Your task to perform on an android device: Search for seafood restaurants on Google Maps Image 0: 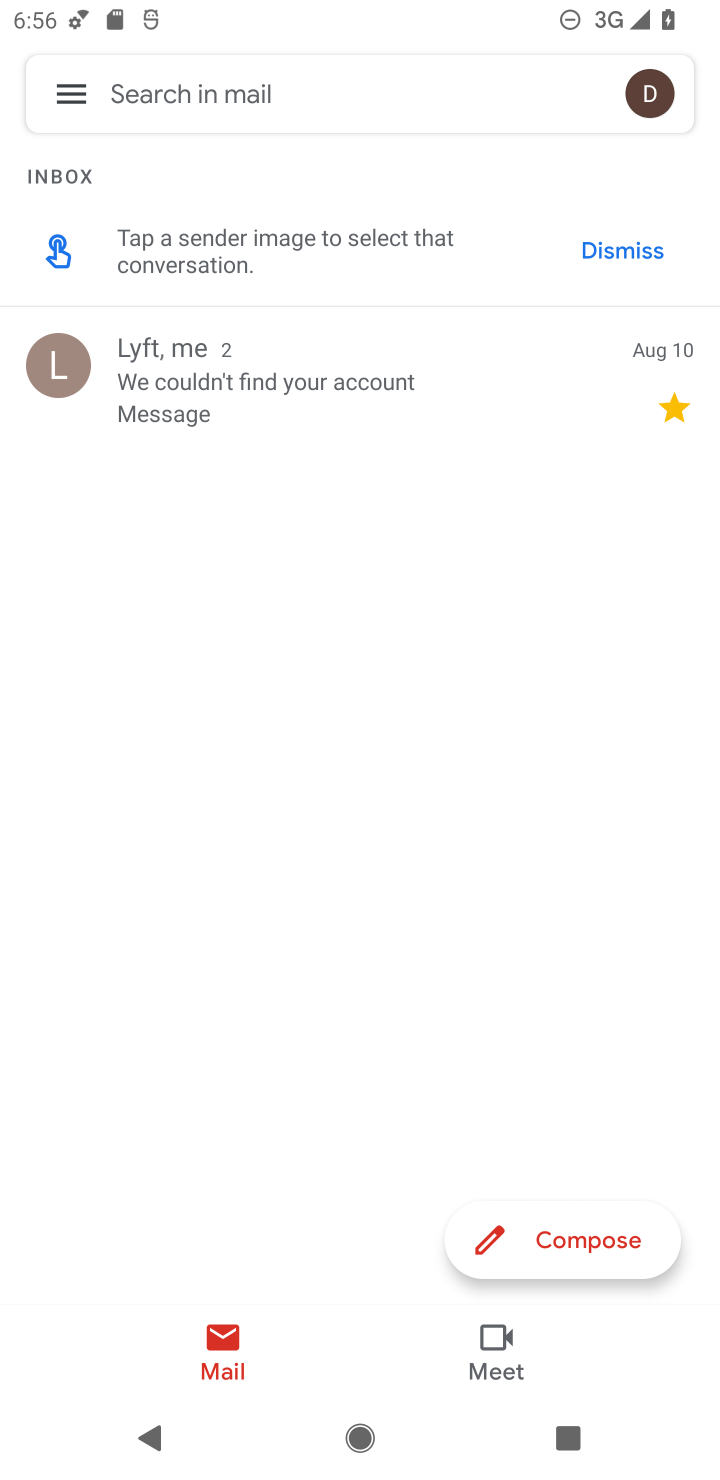
Step 0: press home button
Your task to perform on an android device: Search for seafood restaurants on Google Maps Image 1: 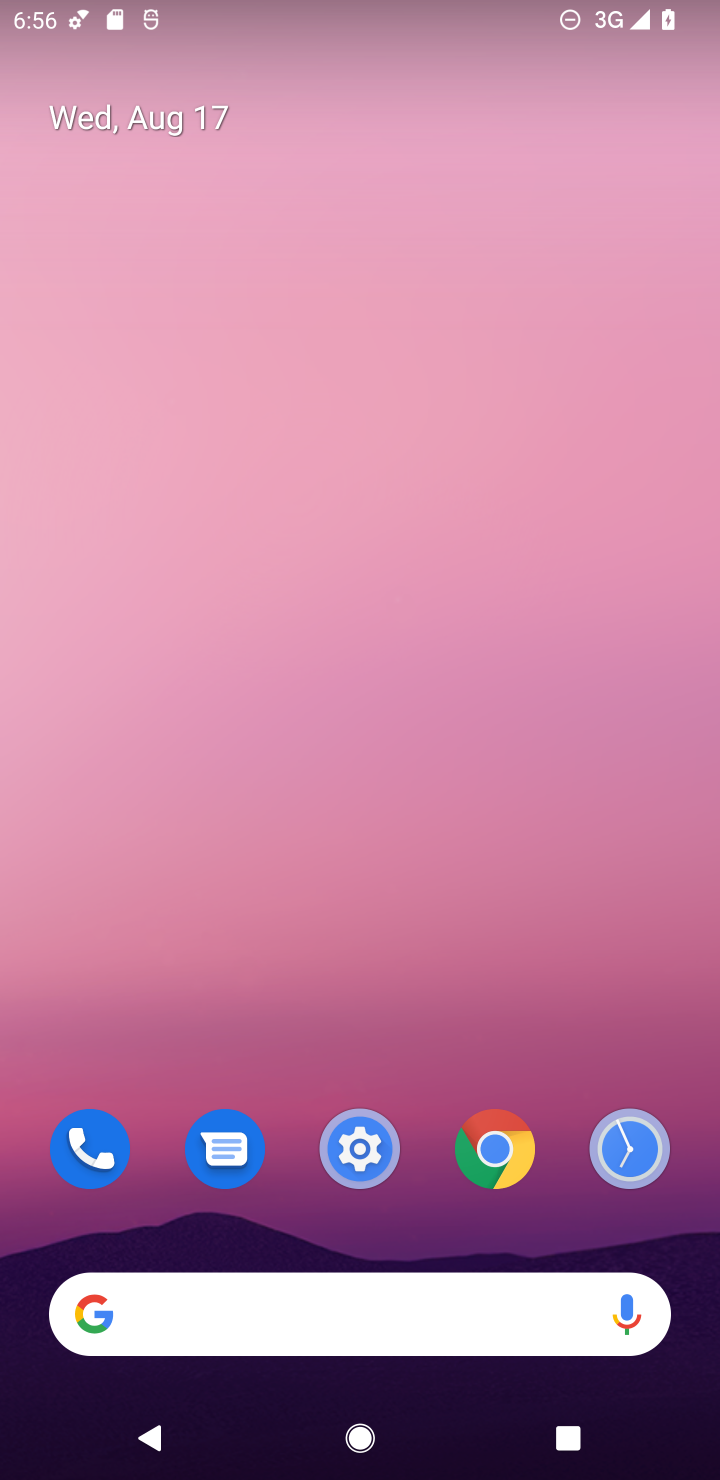
Step 1: drag from (442, 1090) to (386, 403)
Your task to perform on an android device: Search for seafood restaurants on Google Maps Image 2: 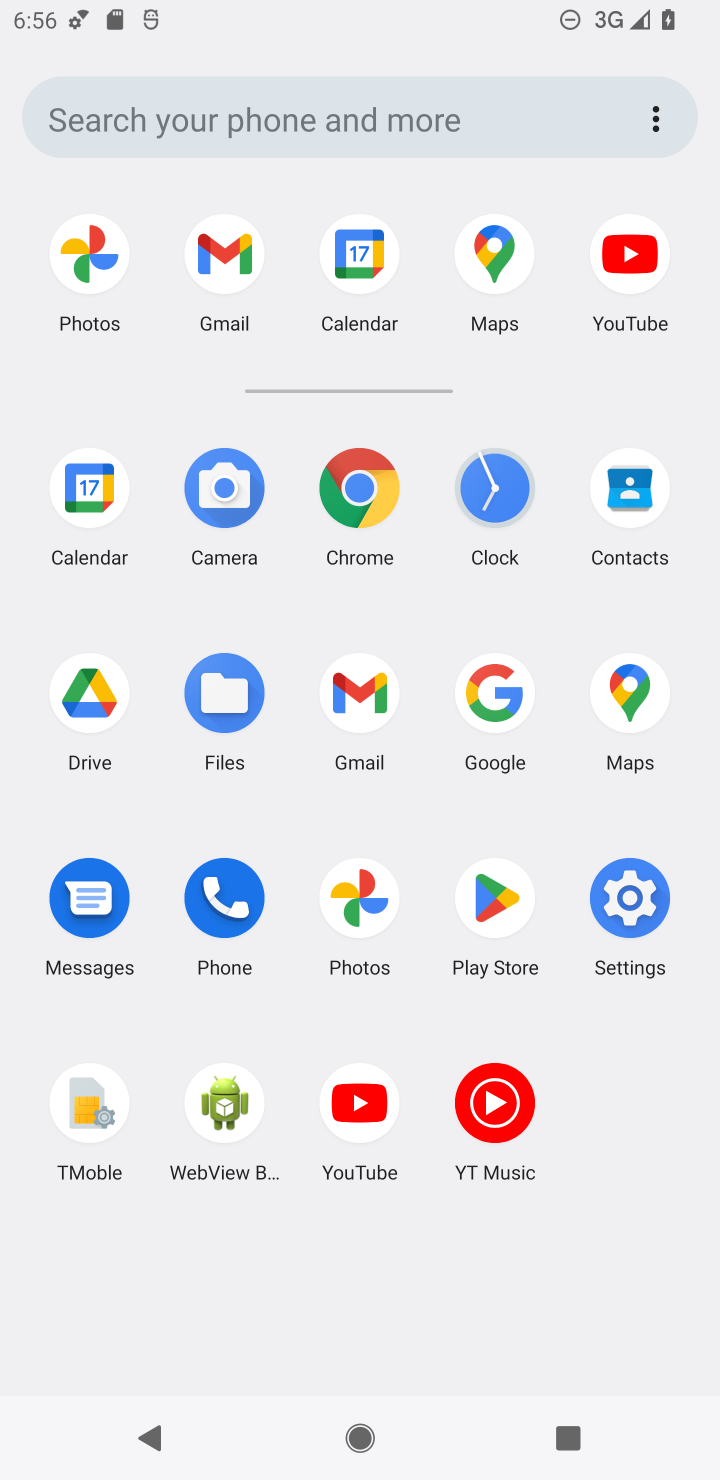
Step 2: click (489, 238)
Your task to perform on an android device: Search for seafood restaurants on Google Maps Image 3: 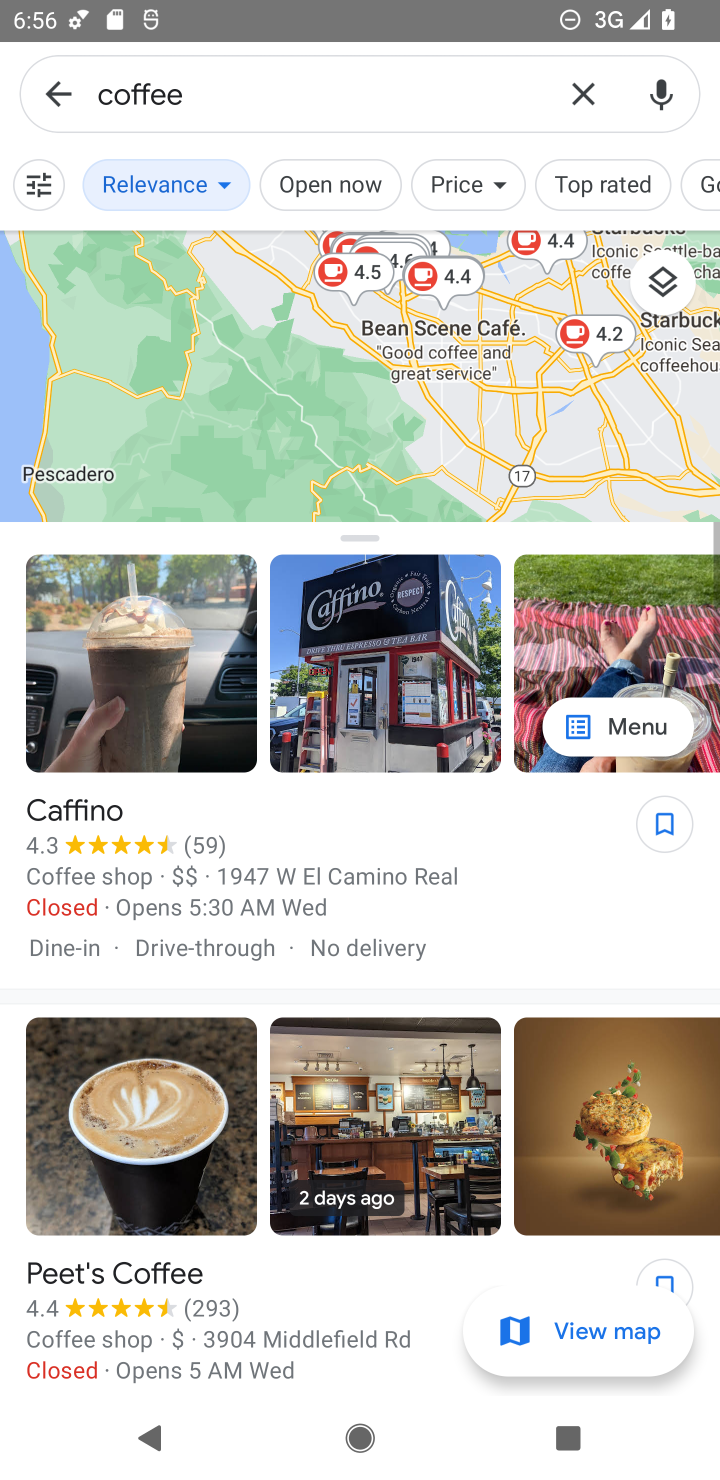
Step 3: click (575, 91)
Your task to perform on an android device: Search for seafood restaurants on Google Maps Image 4: 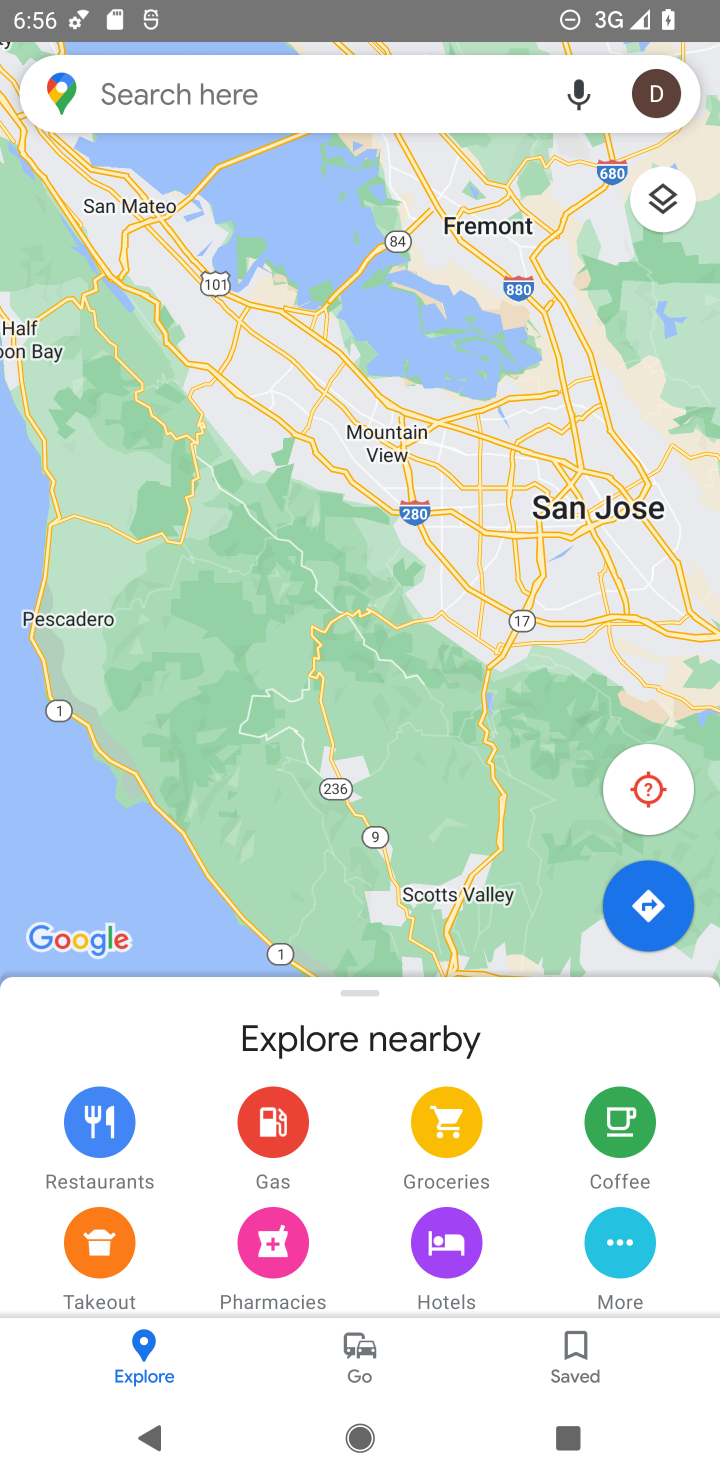
Step 4: click (252, 80)
Your task to perform on an android device: Search for seafood restaurants on Google Maps Image 5: 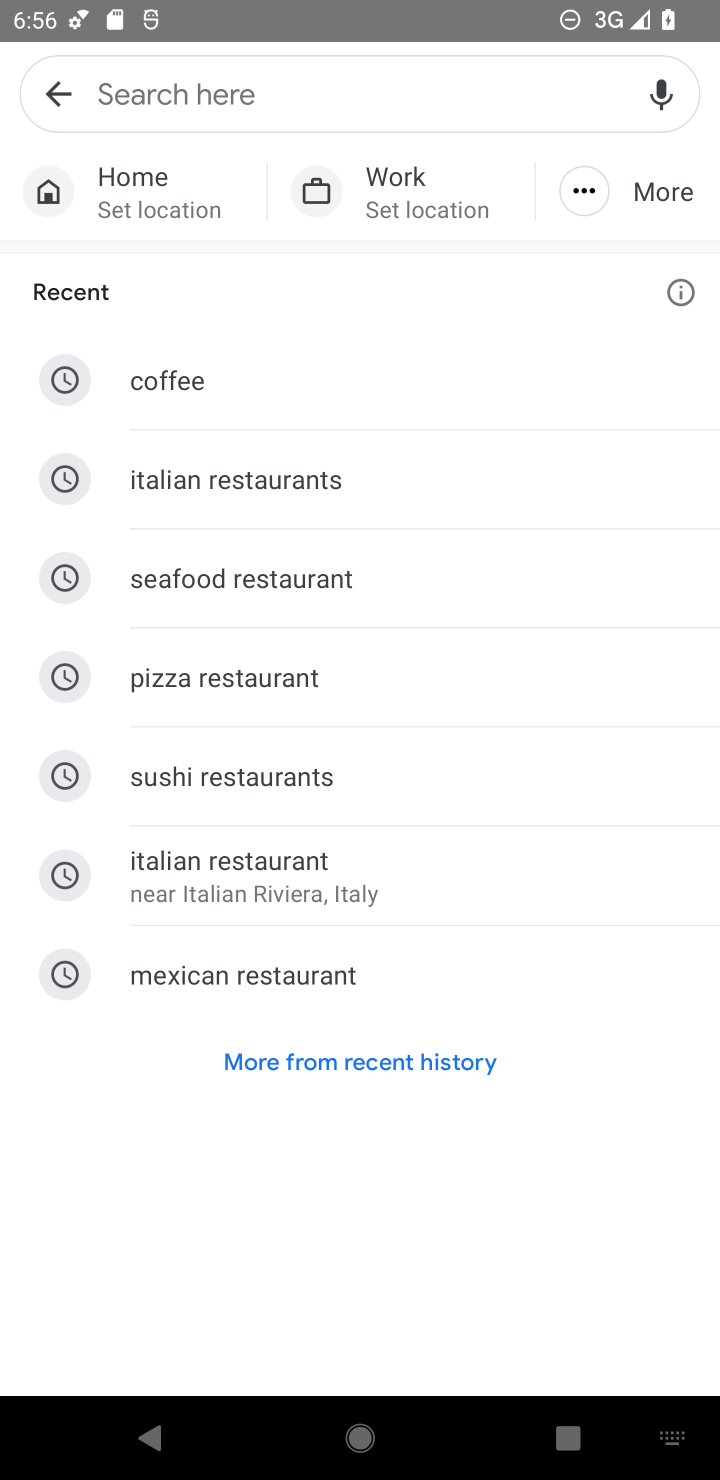
Step 5: click (271, 574)
Your task to perform on an android device: Search for seafood restaurants on Google Maps Image 6: 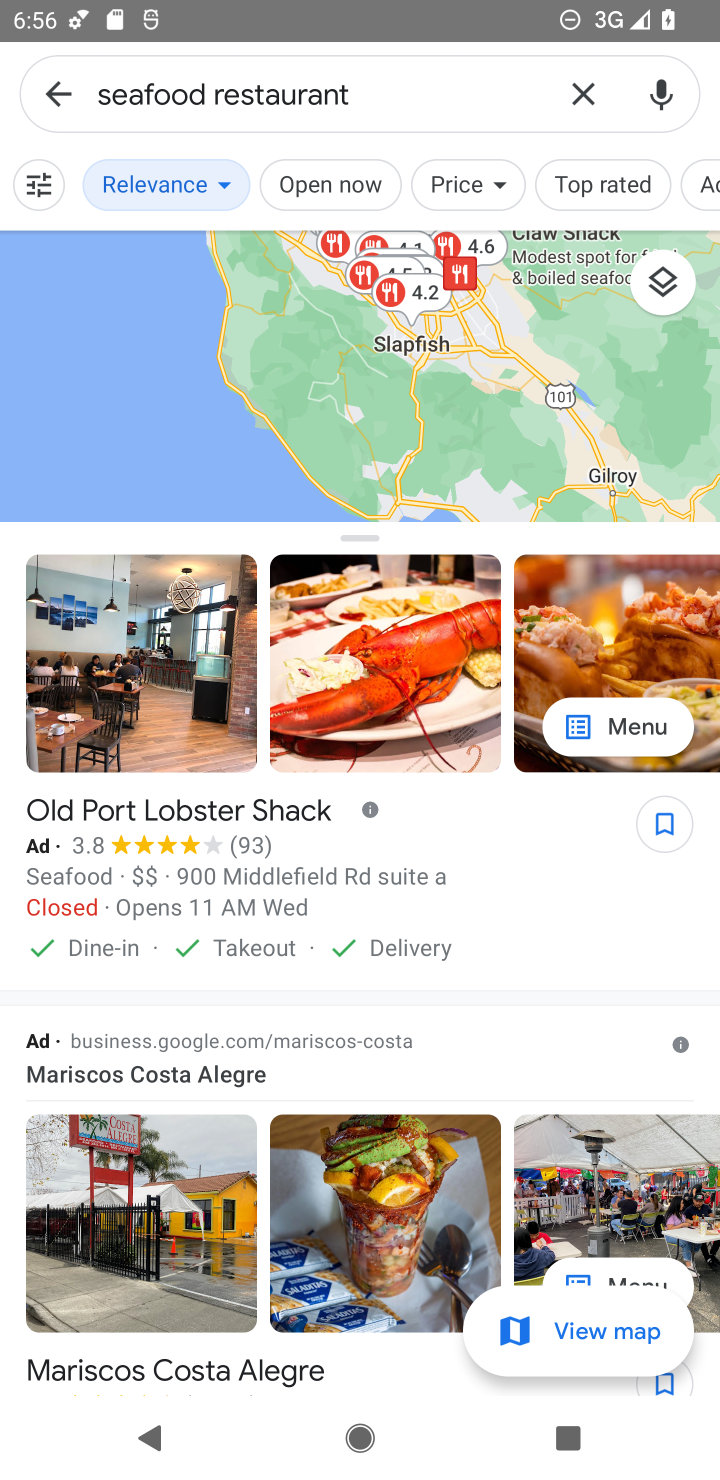
Step 6: task complete